Your task to perform on an android device: What is the recent news? Image 0: 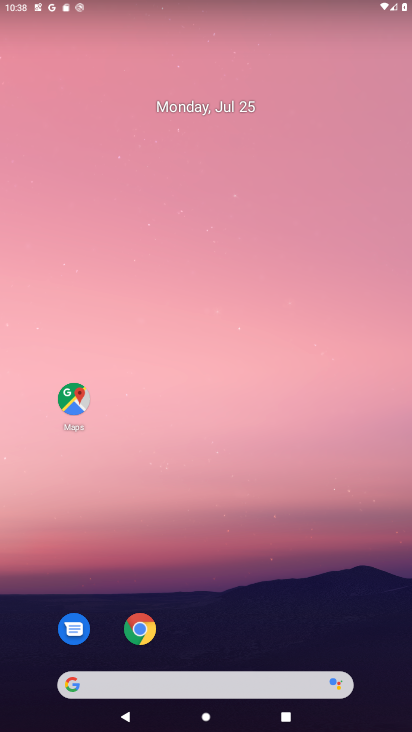
Step 0: drag from (204, 0) to (302, 16)
Your task to perform on an android device: What is the recent news? Image 1: 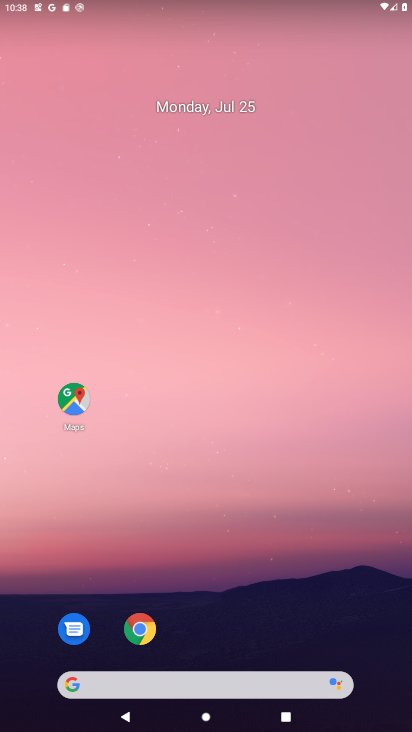
Step 1: drag from (182, 658) to (228, 229)
Your task to perform on an android device: What is the recent news? Image 2: 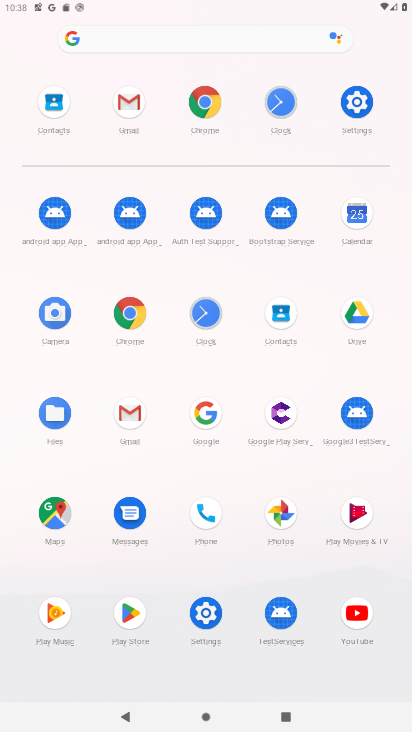
Step 2: click (208, 112)
Your task to perform on an android device: What is the recent news? Image 3: 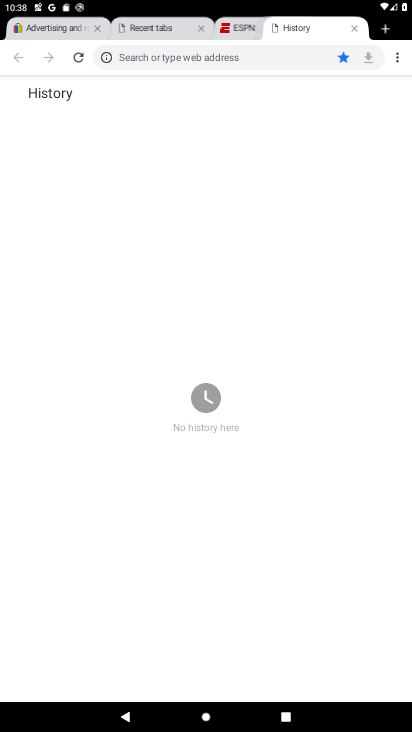
Step 3: click (381, 34)
Your task to perform on an android device: What is the recent news? Image 4: 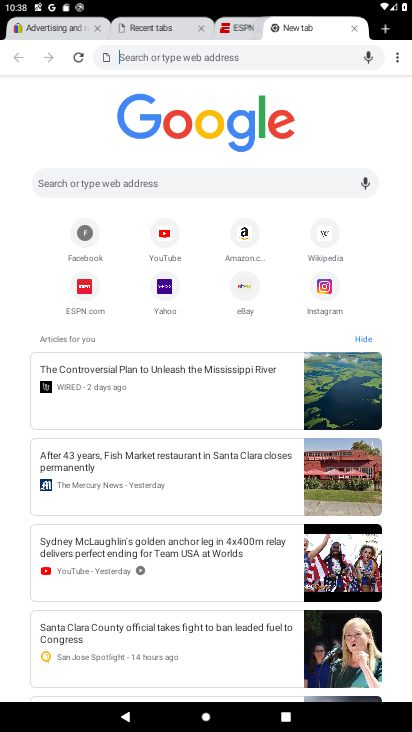
Step 4: task complete